Your task to perform on an android device: toggle location history Image 0: 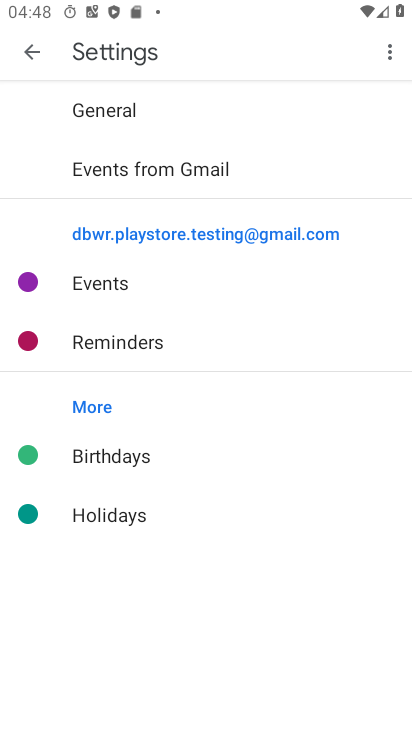
Step 0: press home button
Your task to perform on an android device: toggle location history Image 1: 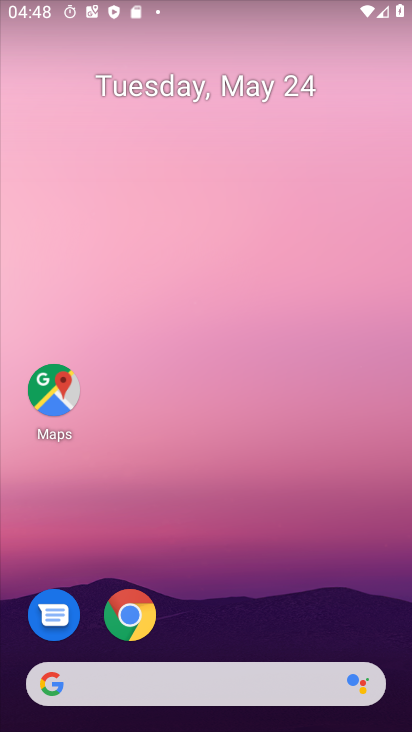
Step 1: drag from (195, 609) to (278, 92)
Your task to perform on an android device: toggle location history Image 2: 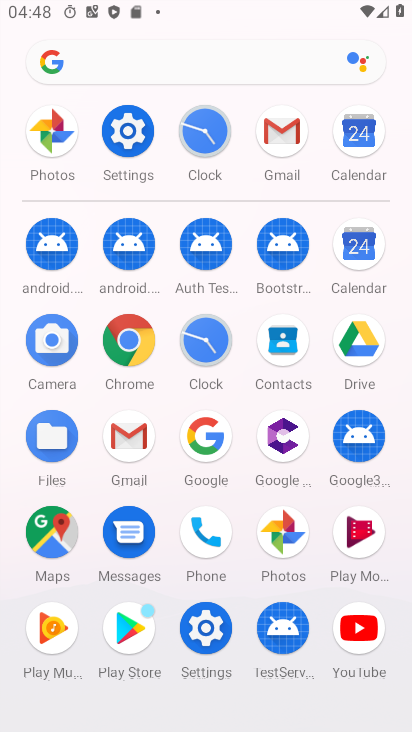
Step 2: click (133, 125)
Your task to perform on an android device: toggle location history Image 3: 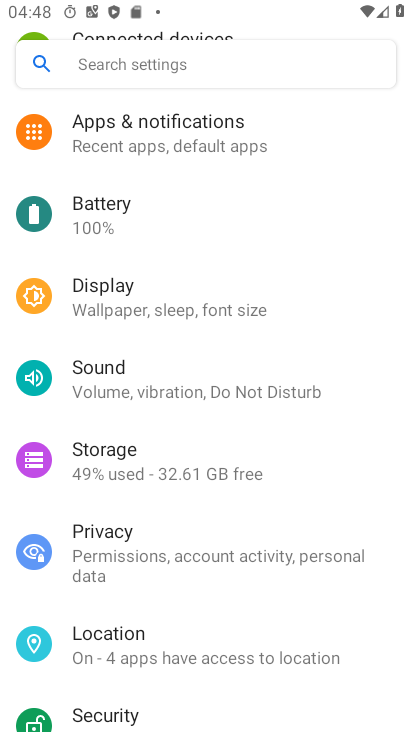
Step 3: click (123, 632)
Your task to perform on an android device: toggle location history Image 4: 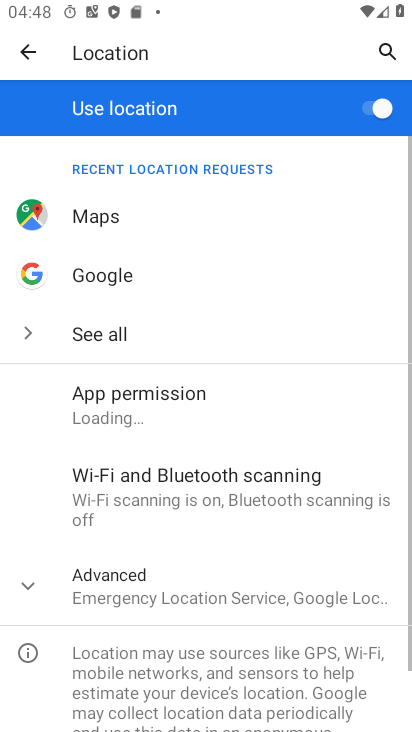
Step 4: click (157, 587)
Your task to perform on an android device: toggle location history Image 5: 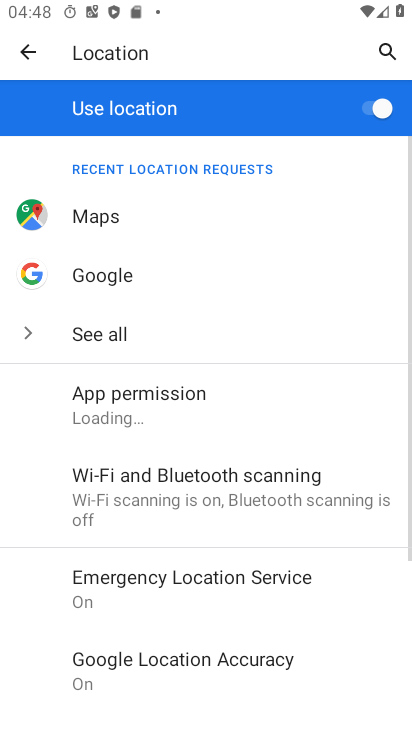
Step 5: drag from (172, 668) to (283, 283)
Your task to perform on an android device: toggle location history Image 6: 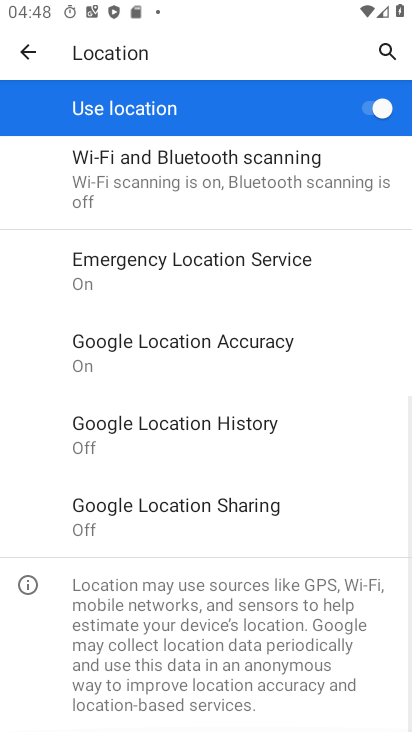
Step 6: click (215, 422)
Your task to perform on an android device: toggle location history Image 7: 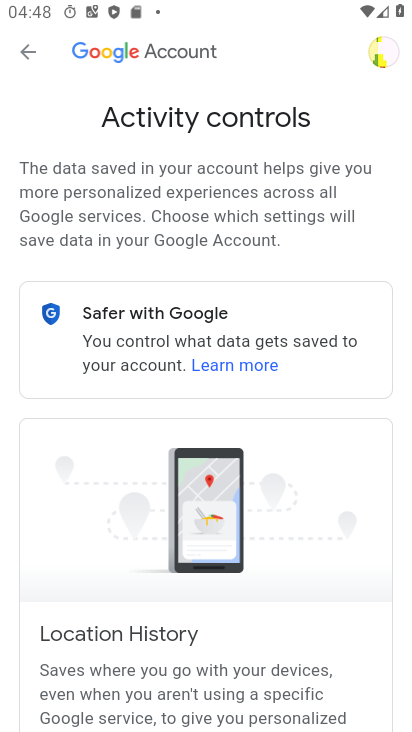
Step 7: drag from (225, 602) to (394, 90)
Your task to perform on an android device: toggle location history Image 8: 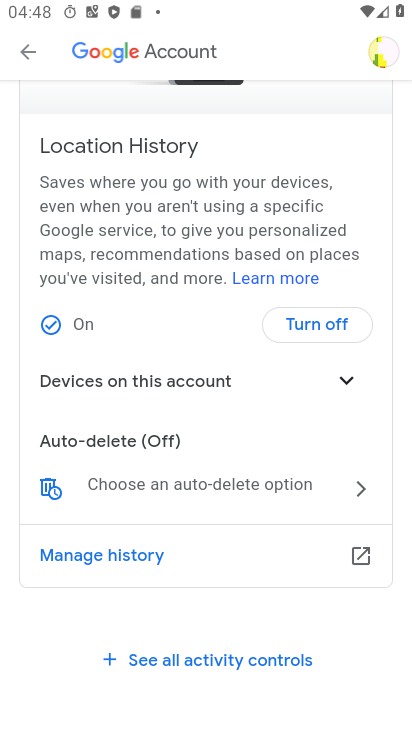
Step 8: click (323, 322)
Your task to perform on an android device: toggle location history Image 9: 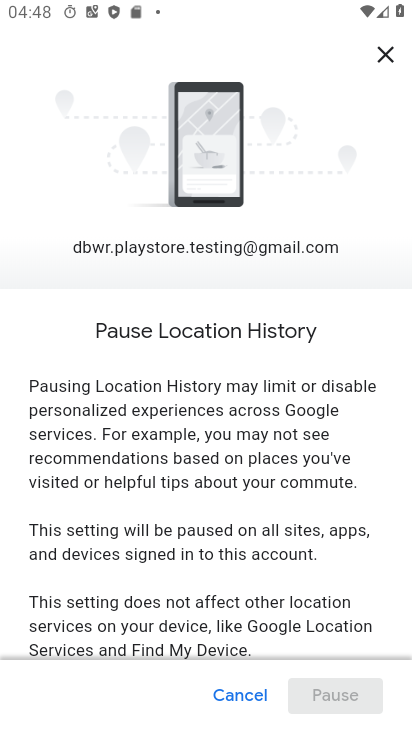
Step 9: drag from (312, 631) to (357, 54)
Your task to perform on an android device: toggle location history Image 10: 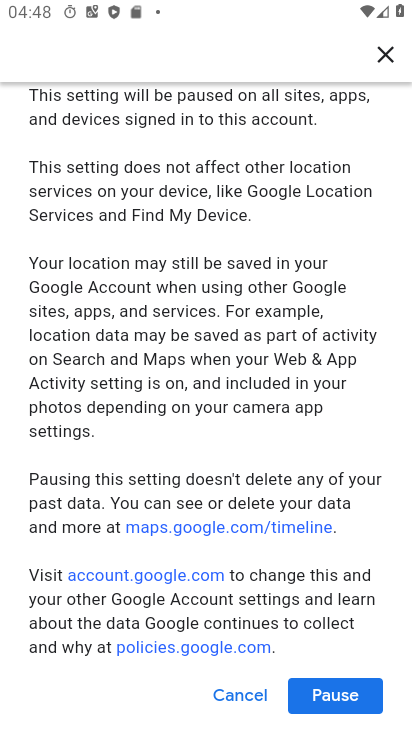
Step 10: click (336, 705)
Your task to perform on an android device: toggle location history Image 11: 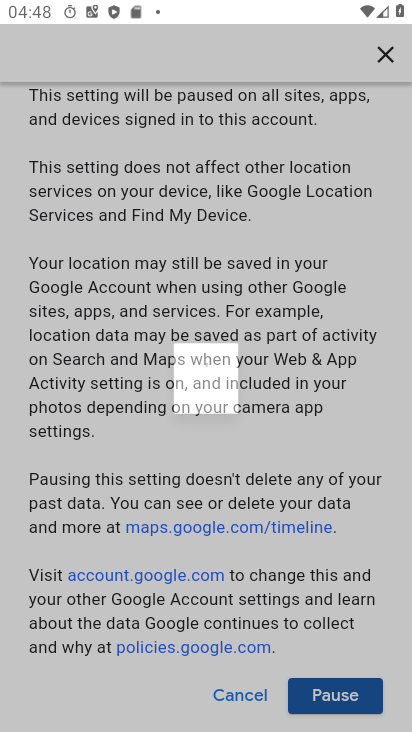
Step 11: click (330, 692)
Your task to perform on an android device: toggle location history Image 12: 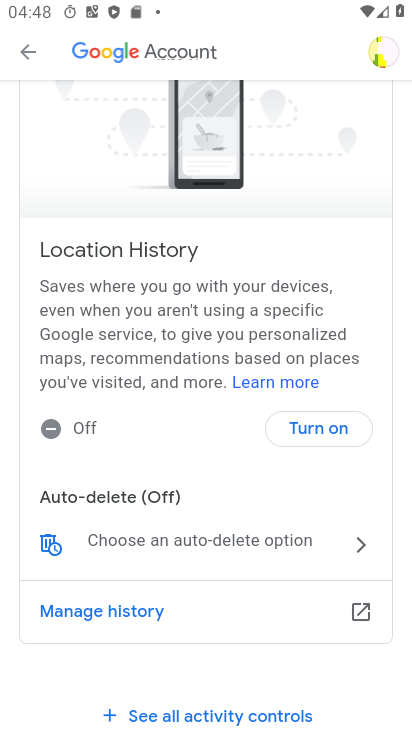
Step 12: task complete